Your task to perform on an android device: Open Google Maps and go to "Timeline" Image 0: 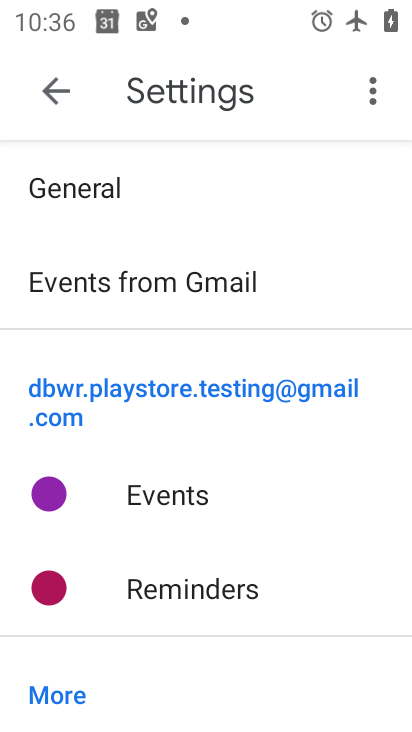
Step 0: press home button
Your task to perform on an android device: Open Google Maps and go to "Timeline" Image 1: 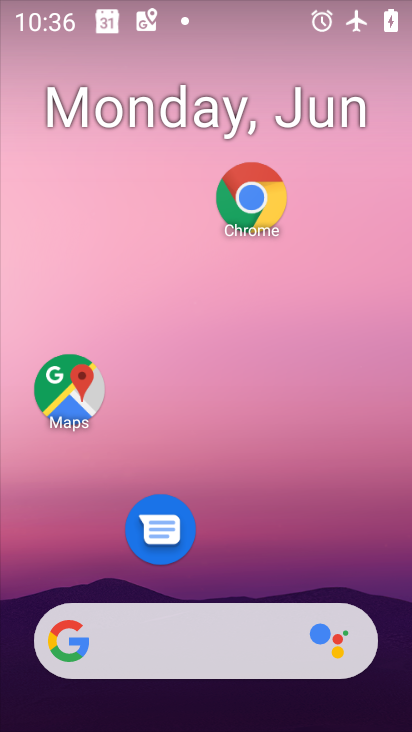
Step 1: drag from (221, 573) to (226, 473)
Your task to perform on an android device: Open Google Maps and go to "Timeline" Image 2: 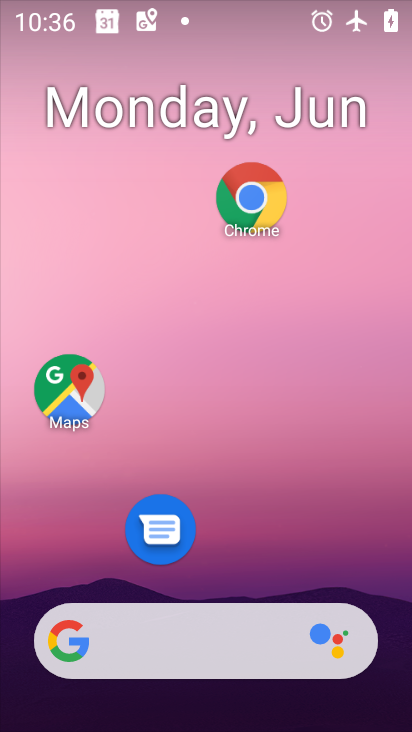
Step 2: click (80, 405)
Your task to perform on an android device: Open Google Maps and go to "Timeline" Image 3: 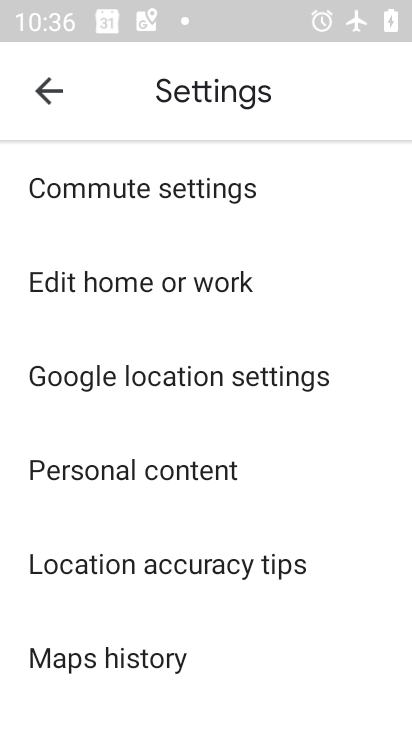
Step 3: drag from (176, 238) to (204, 617)
Your task to perform on an android device: Open Google Maps and go to "Timeline" Image 4: 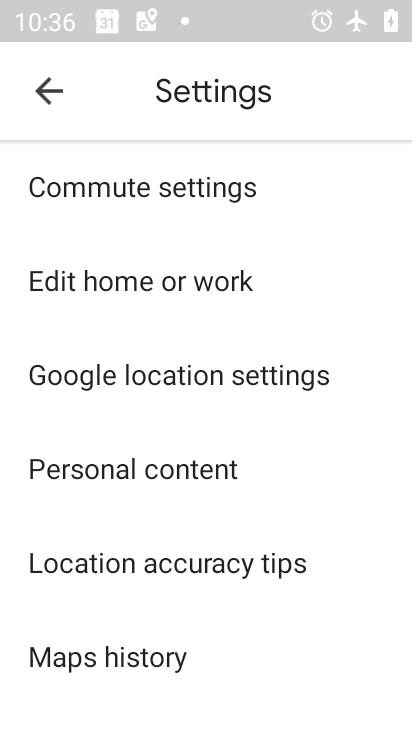
Step 4: click (52, 93)
Your task to perform on an android device: Open Google Maps and go to "Timeline" Image 5: 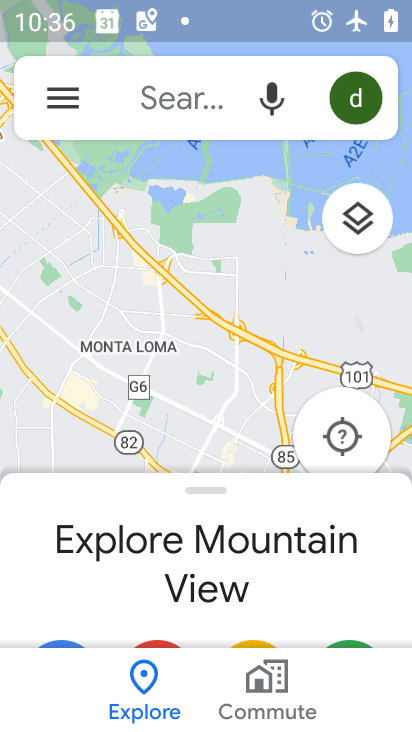
Step 5: click (52, 93)
Your task to perform on an android device: Open Google Maps and go to "Timeline" Image 6: 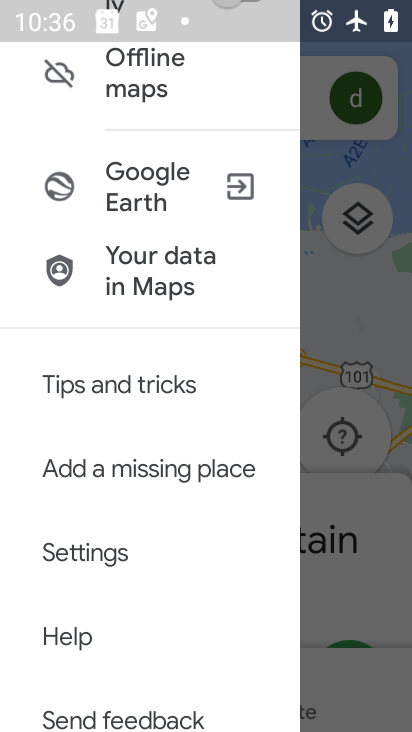
Step 6: drag from (89, 228) to (127, 644)
Your task to perform on an android device: Open Google Maps and go to "Timeline" Image 7: 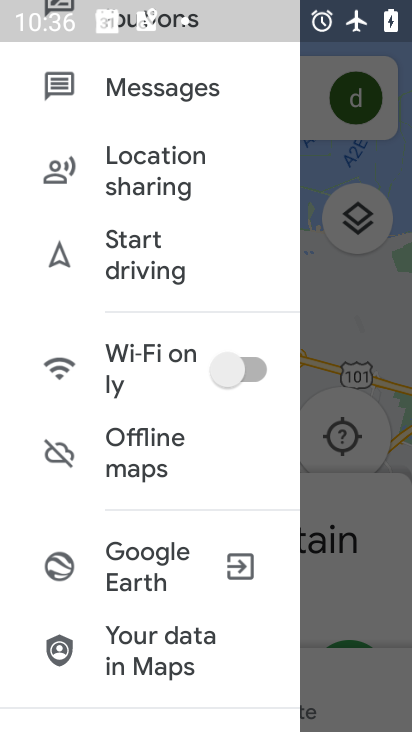
Step 7: drag from (176, 167) to (193, 388)
Your task to perform on an android device: Open Google Maps and go to "Timeline" Image 8: 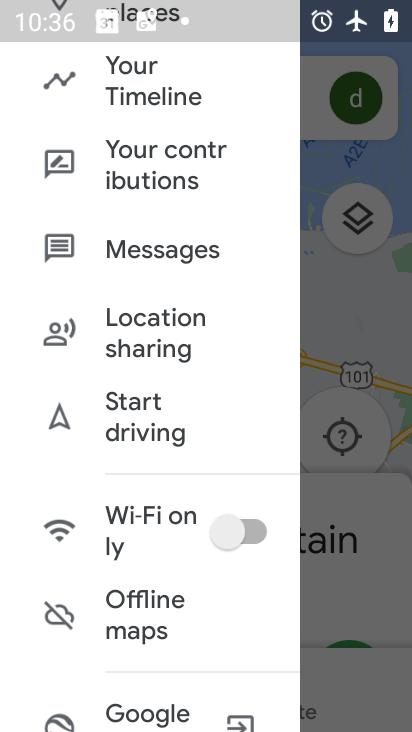
Step 8: drag from (196, 178) to (178, 515)
Your task to perform on an android device: Open Google Maps and go to "Timeline" Image 9: 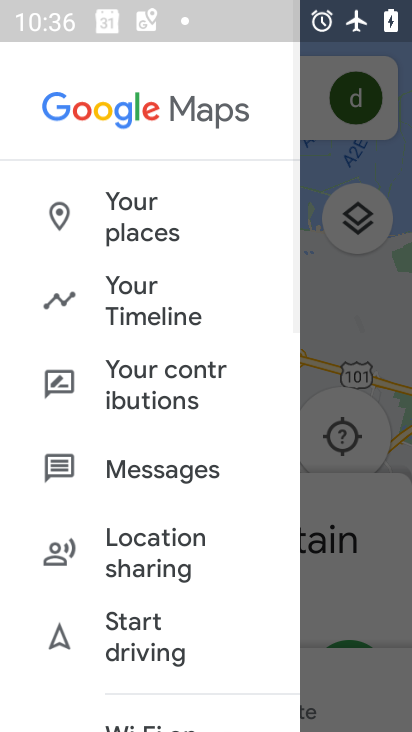
Step 9: click (170, 290)
Your task to perform on an android device: Open Google Maps and go to "Timeline" Image 10: 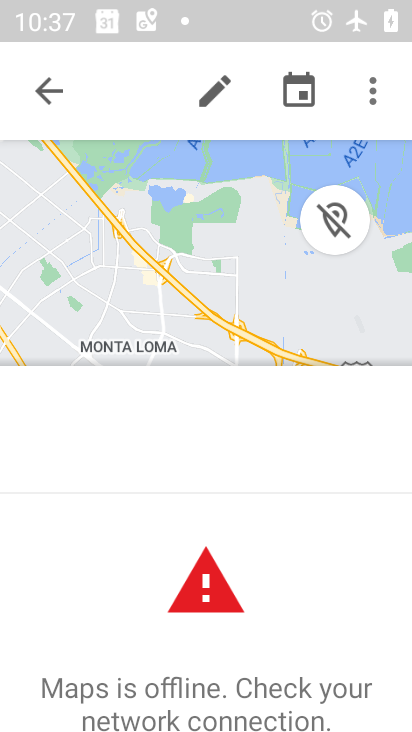
Step 10: task complete